Your task to perform on an android device: change the clock display to digital Image 0: 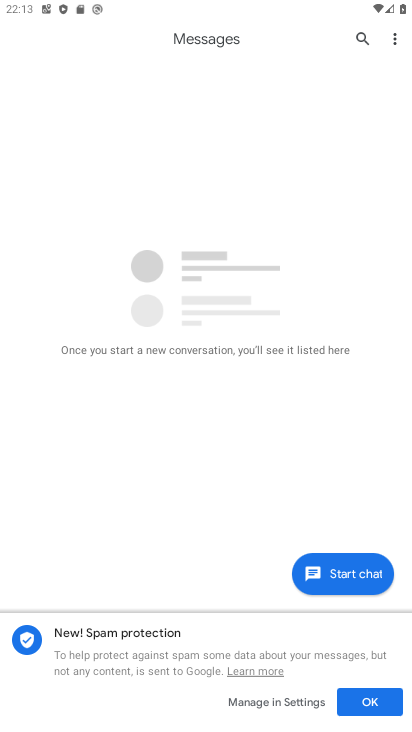
Step 0: press home button
Your task to perform on an android device: change the clock display to digital Image 1: 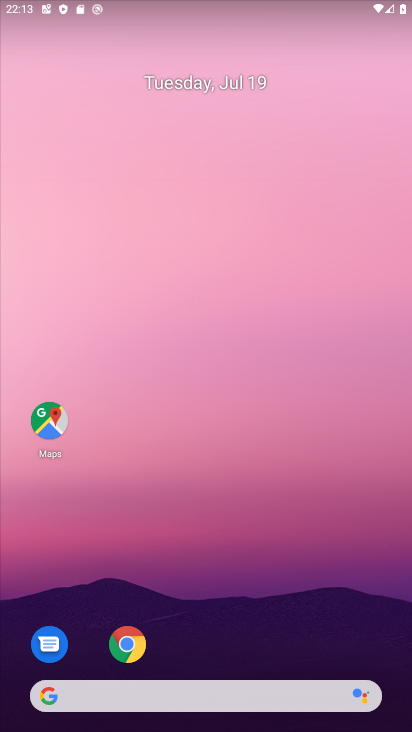
Step 1: drag from (218, 688) to (200, 121)
Your task to perform on an android device: change the clock display to digital Image 2: 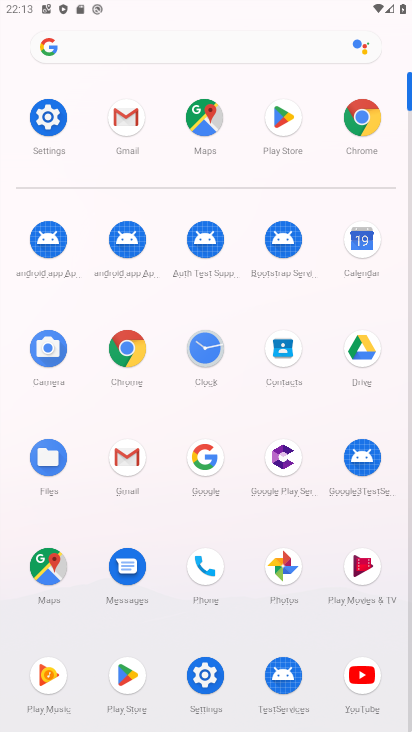
Step 2: click (198, 344)
Your task to perform on an android device: change the clock display to digital Image 3: 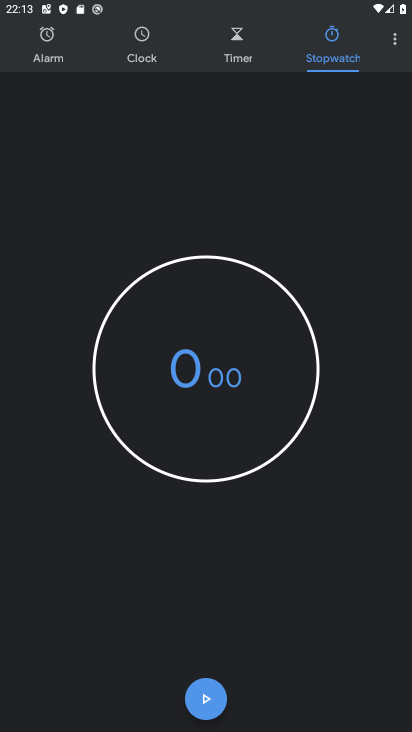
Step 3: click (395, 36)
Your task to perform on an android device: change the clock display to digital Image 4: 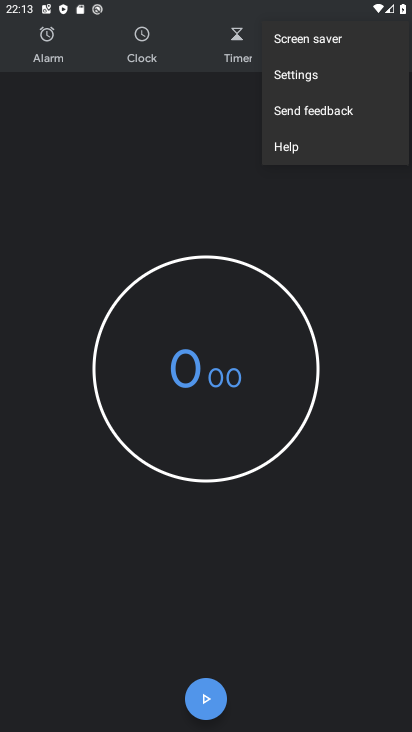
Step 4: click (288, 73)
Your task to perform on an android device: change the clock display to digital Image 5: 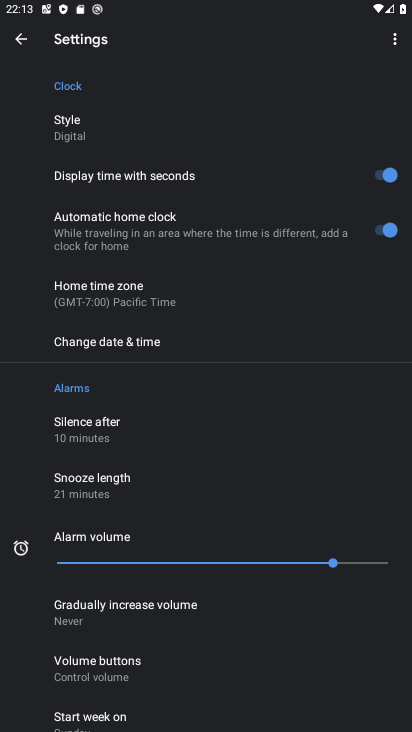
Step 5: click (77, 129)
Your task to perform on an android device: change the clock display to digital Image 6: 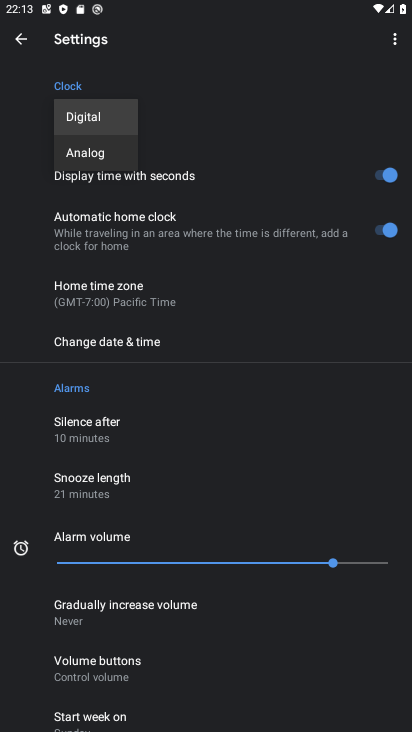
Step 6: click (75, 115)
Your task to perform on an android device: change the clock display to digital Image 7: 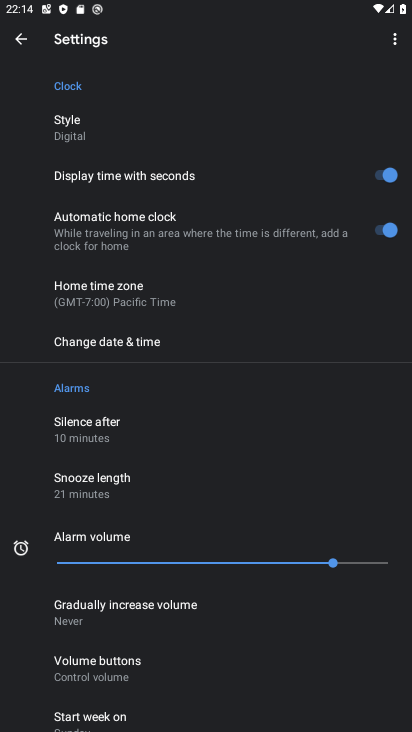
Step 7: task complete